Your task to perform on an android device: Open settings Image 0: 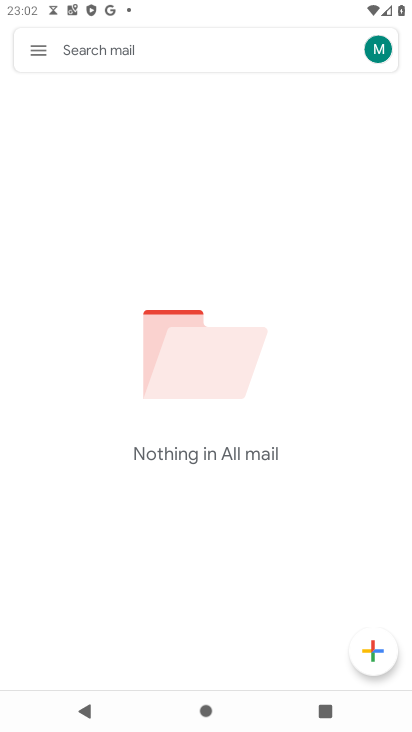
Step 0: press home button
Your task to perform on an android device: Open settings Image 1: 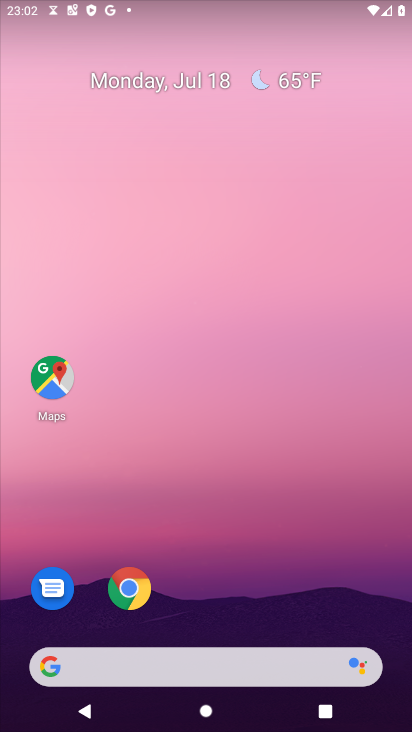
Step 1: drag from (222, 657) to (227, 189)
Your task to perform on an android device: Open settings Image 2: 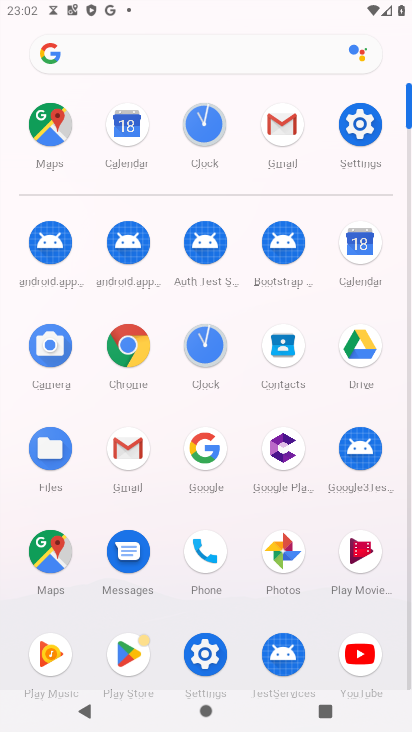
Step 2: click (359, 122)
Your task to perform on an android device: Open settings Image 3: 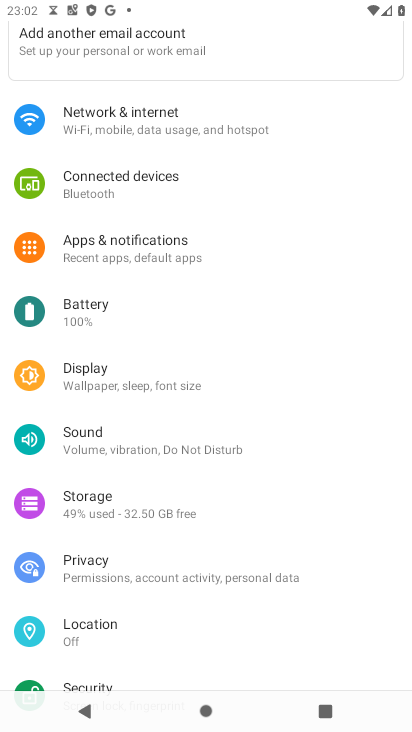
Step 3: task complete